Your task to perform on an android device: Toggle the flashlight Image 0: 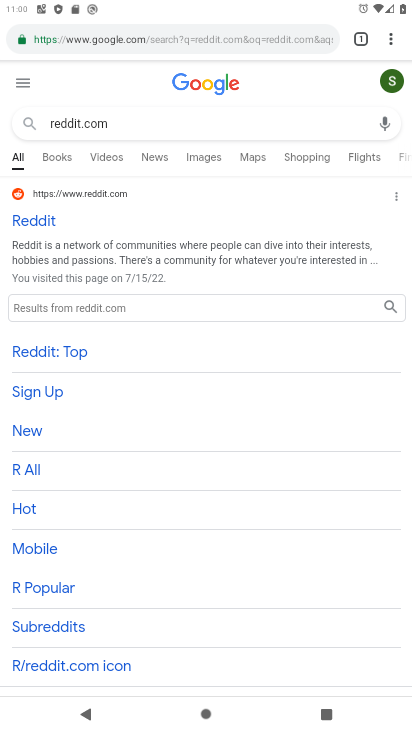
Step 0: press home button
Your task to perform on an android device: Toggle the flashlight Image 1: 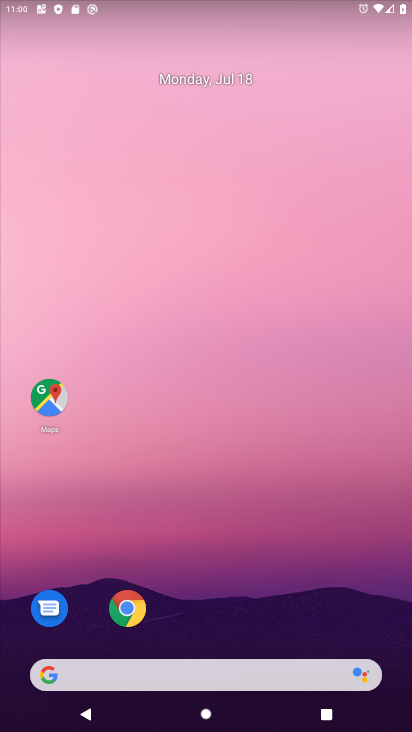
Step 1: drag from (225, 548) to (302, 2)
Your task to perform on an android device: Toggle the flashlight Image 2: 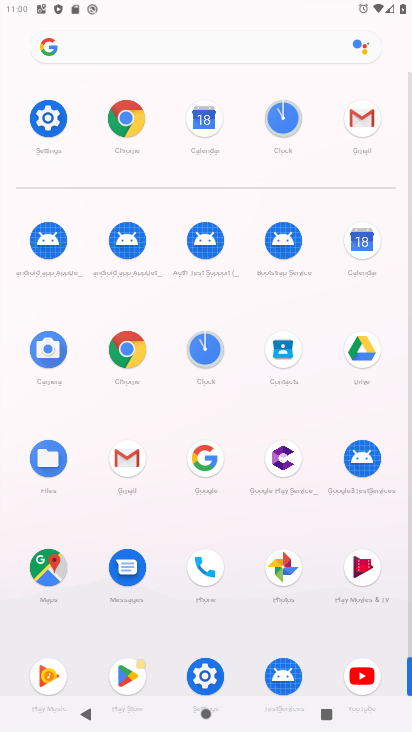
Step 2: click (207, 665)
Your task to perform on an android device: Toggle the flashlight Image 3: 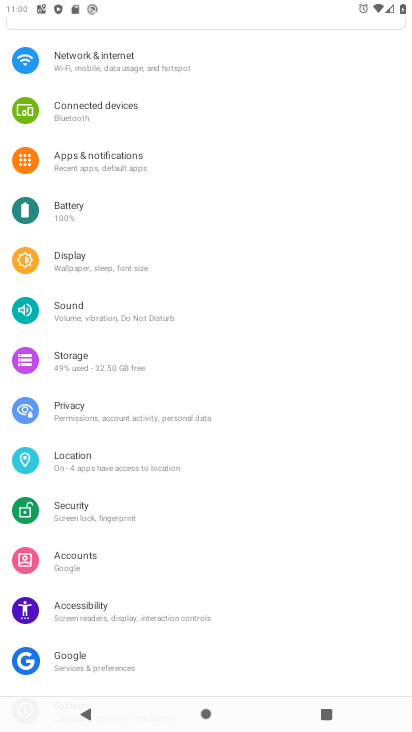
Step 3: drag from (167, 156) to (236, 609)
Your task to perform on an android device: Toggle the flashlight Image 4: 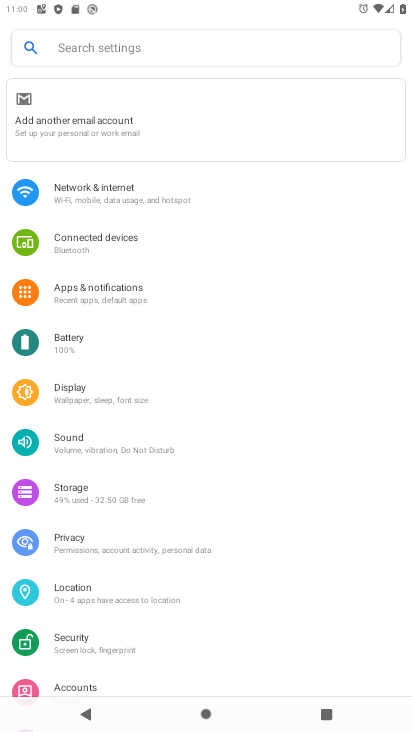
Step 4: click (186, 45)
Your task to perform on an android device: Toggle the flashlight Image 5: 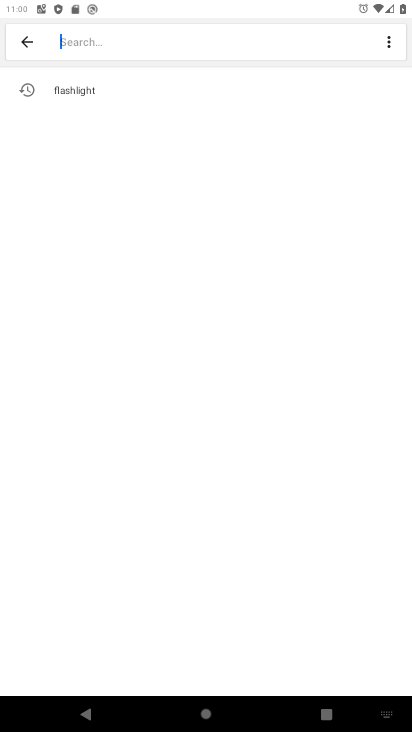
Step 5: type "flashlight"
Your task to perform on an android device: Toggle the flashlight Image 6: 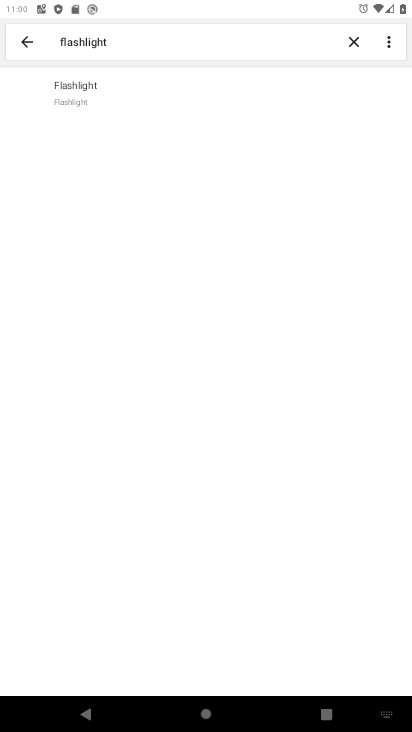
Step 6: click (47, 97)
Your task to perform on an android device: Toggle the flashlight Image 7: 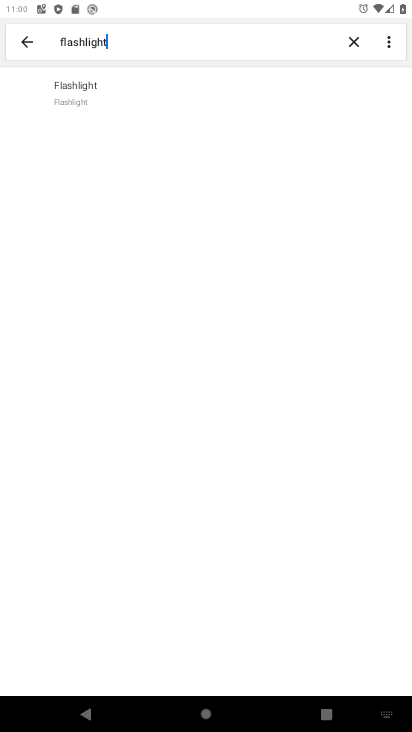
Step 7: task complete